Your task to perform on an android device: Open Reddit.com Image 0: 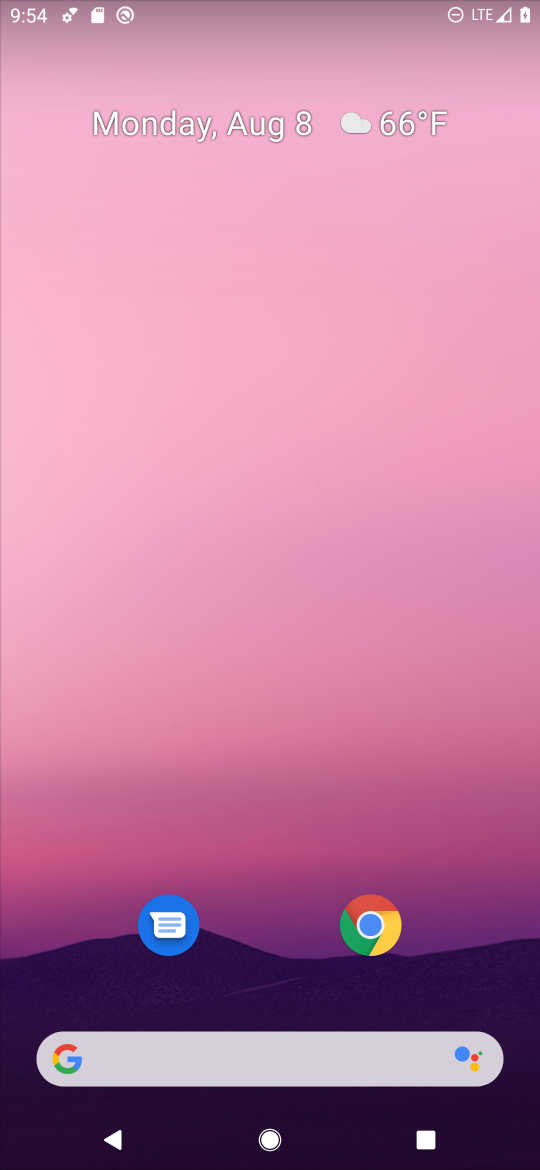
Step 0: drag from (279, 919) to (480, 78)
Your task to perform on an android device: Open Reddit.com Image 1: 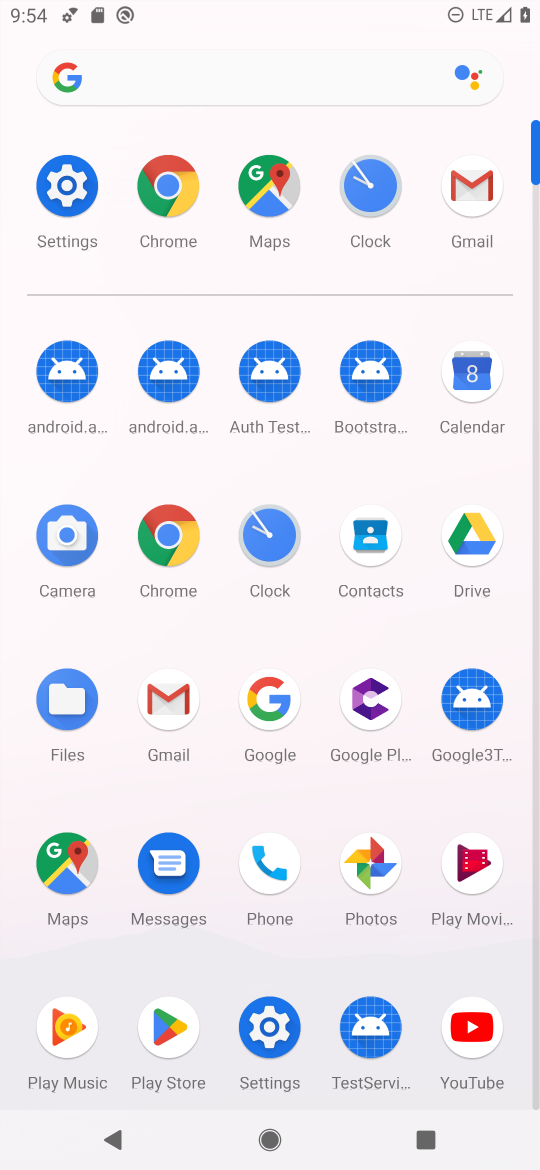
Step 1: click (165, 533)
Your task to perform on an android device: Open Reddit.com Image 2: 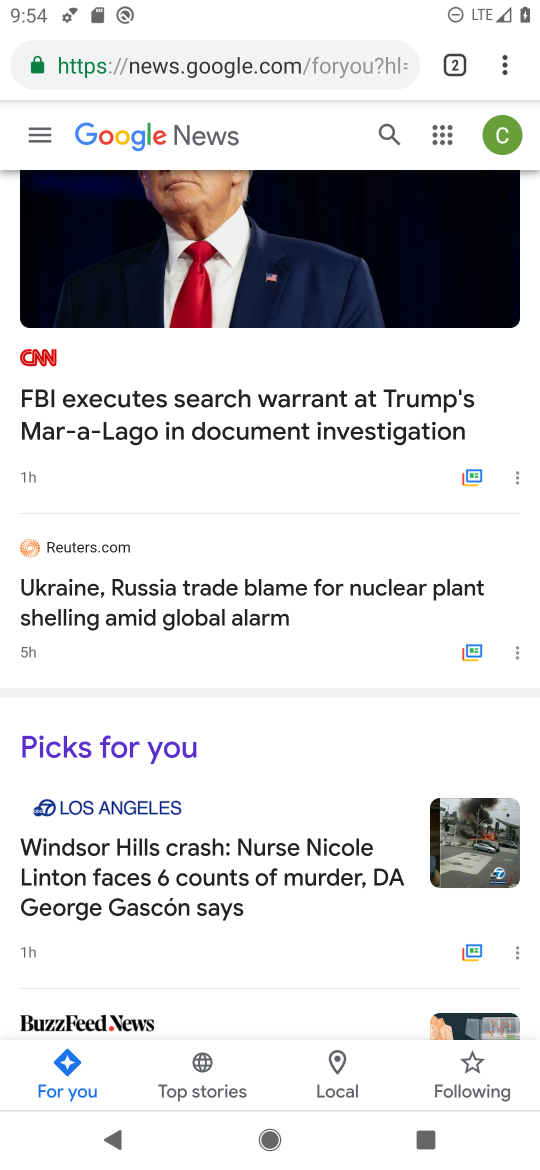
Step 2: click (327, 41)
Your task to perform on an android device: Open Reddit.com Image 3: 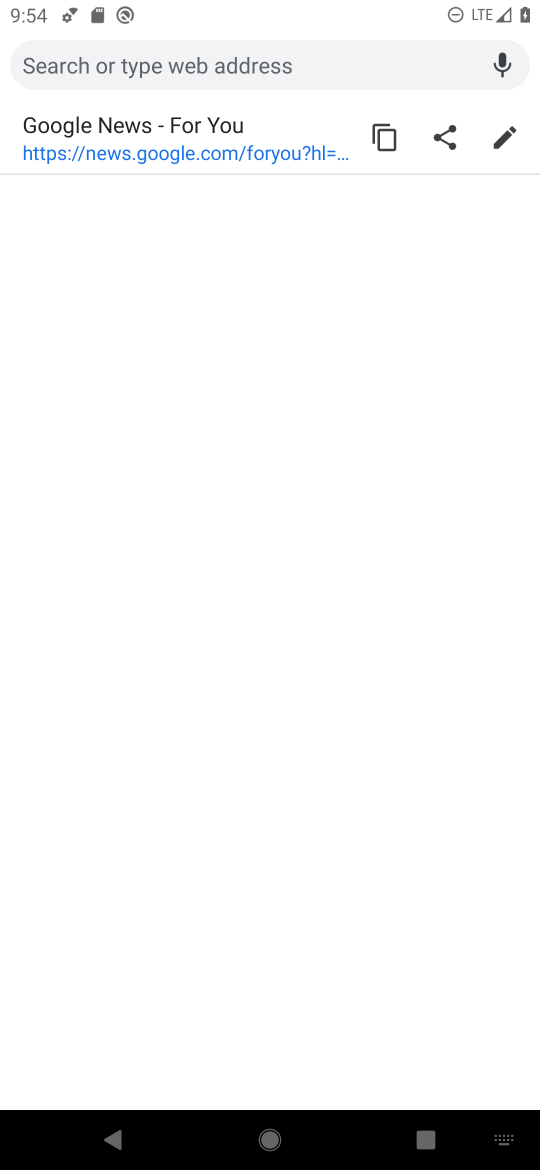
Step 3: type "reddit.com"
Your task to perform on an android device: Open Reddit.com Image 4: 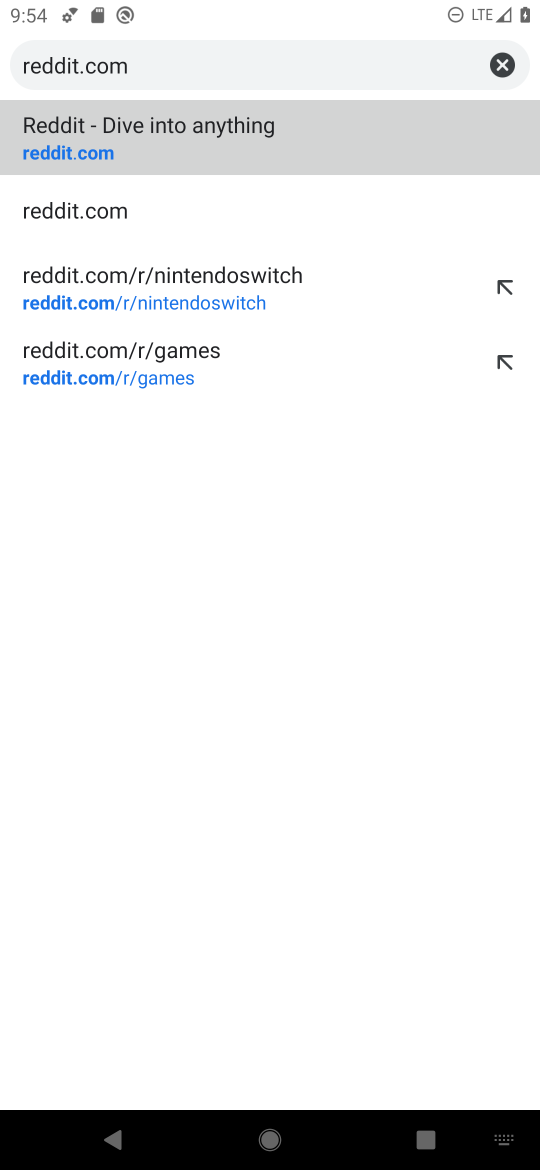
Step 4: click (214, 144)
Your task to perform on an android device: Open Reddit.com Image 5: 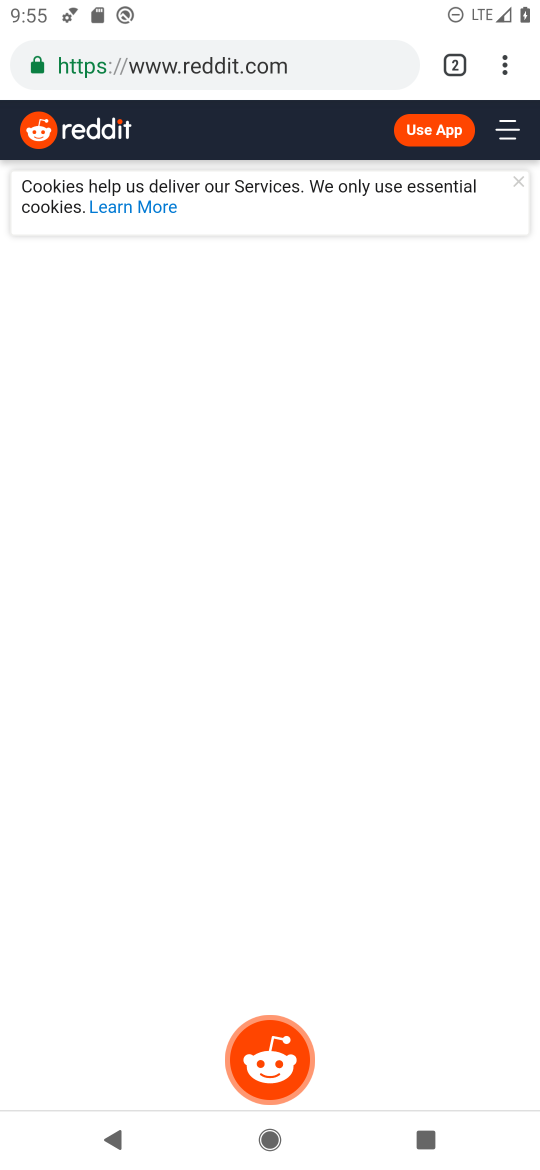
Step 5: task complete